Your task to perform on an android device: Check the weather Image 0: 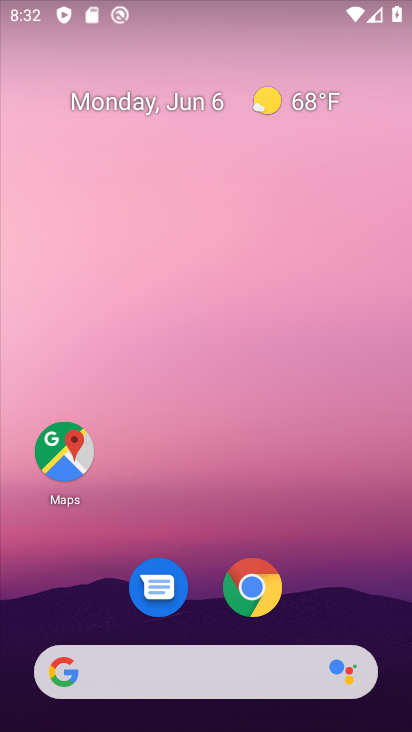
Step 0: click (285, 106)
Your task to perform on an android device: Check the weather Image 1: 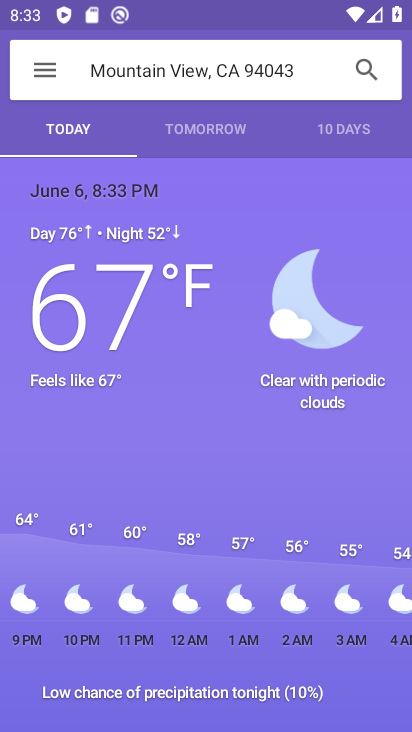
Step 1: task complete